Your task to perform on an android device: Empty the shopping cart on costco. Add jbl flip 4 to the cart on costco Image 0: 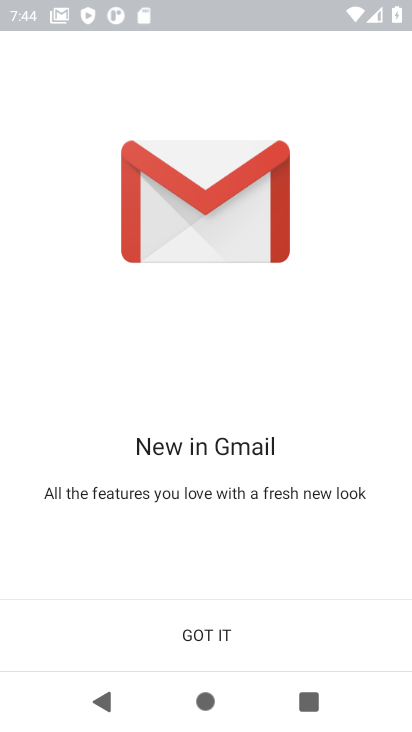
Step 0: press home button
Your task to perform on an android device: Empty the shopping cart on costco. Add jbl flip 4 to the cart on costco Image 1: 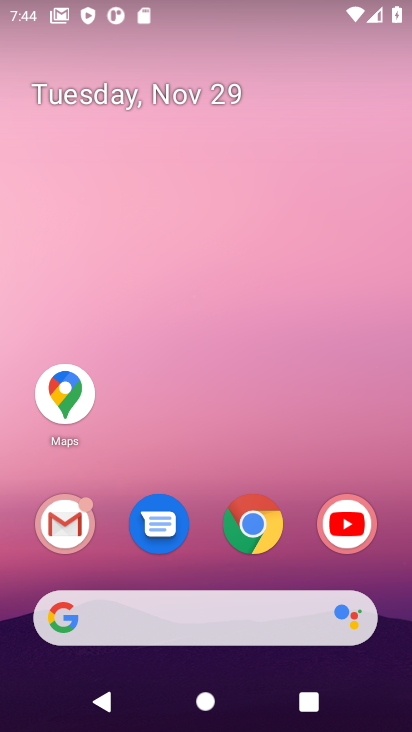
Step 1: click (261, 526)
Your task to perform on an android device: Empty the shopping cart on costco. Add jbl flip 4 to the cart on costco Image 2: 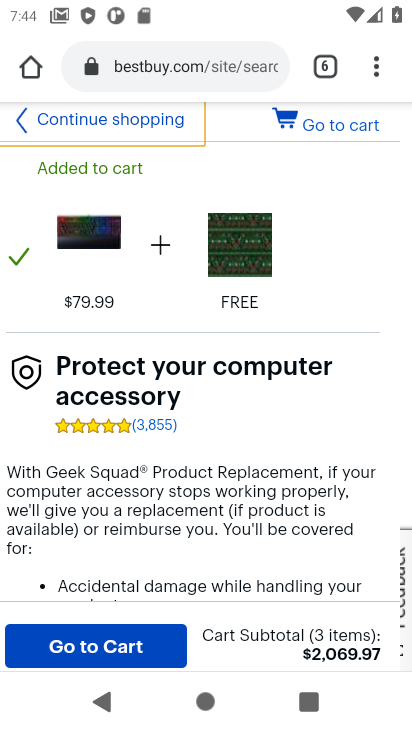
Step 2: click (183, 70)
Your task to perform on an android device: Empty the shopping cart on costco. Add jbl flip 4 to the cart on costco Image 3: 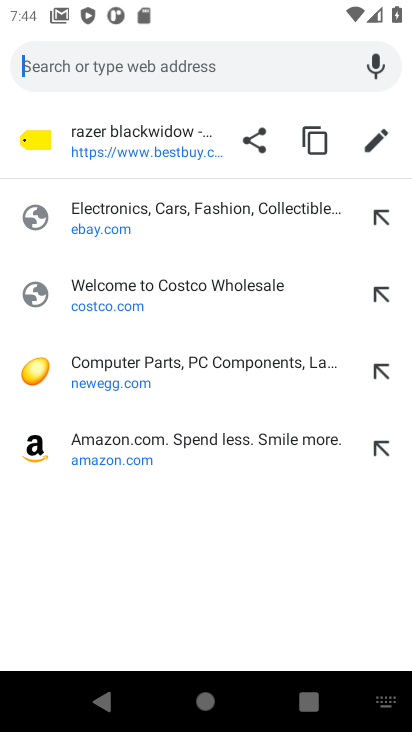
Step 3: click (78, 285)
Your task to perform on an android device: Empty the shopping cart on costco. Add jbl flip 4 to the cart on costco Image 4: 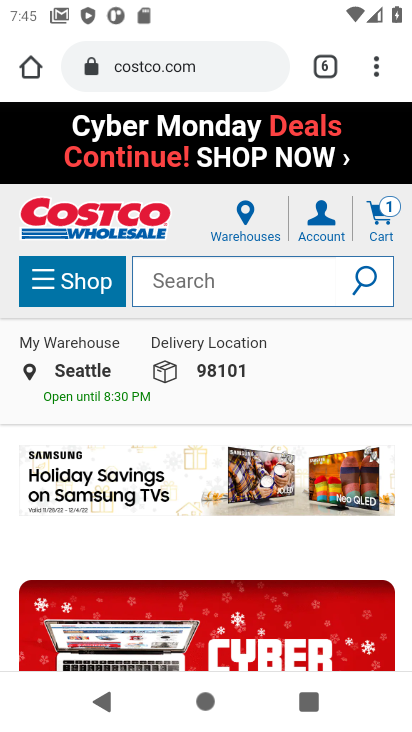
Step 4: click (386, 217)
Your task to perform on an android device: Empty the shopping cart on costco. Add jbl flip 4 to the cart on costco Image 5: 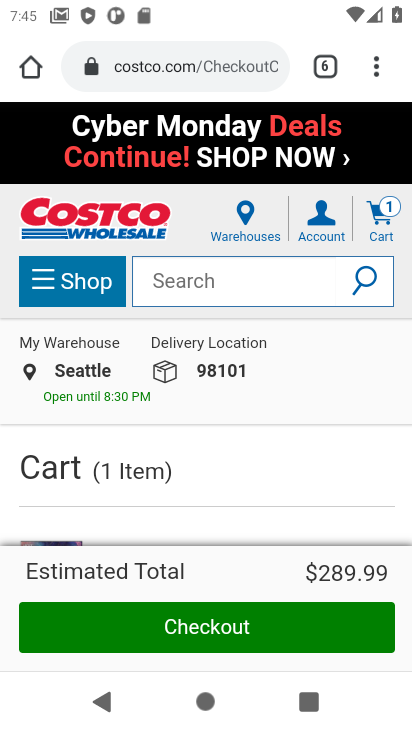
Step 5: drag from (184, 488) to (175, 183)
Your task to perform on an android device: Empty the shopping cart on costco. Add jbl flip 4 to the cart on costco Image 6: 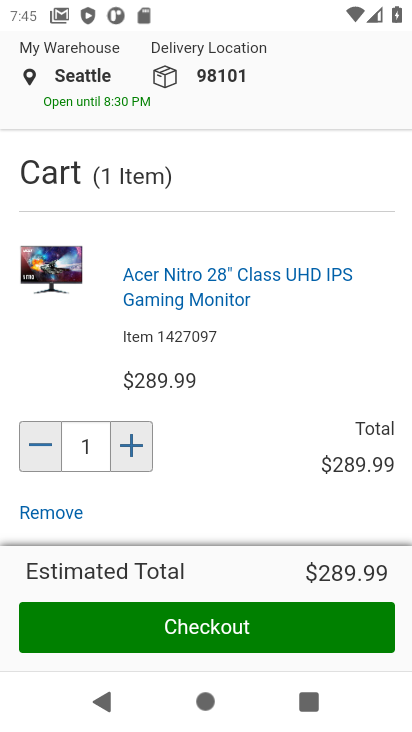
Step 6: drag from (241, 374) to (232, 155)
Your task to perform on an android device: Empty the shopping cart on costco. Add jbl flip 4 to the cart on costco Image 7: 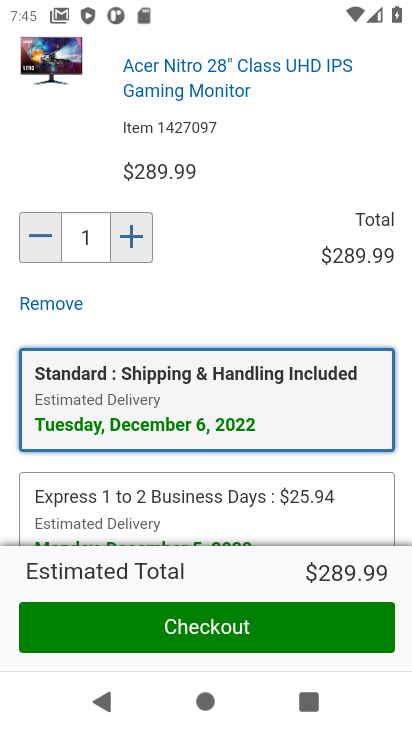
Step 7: drag from (256, 466) to (235, 130)
Your task to perform on an android device: Empty the shopping cart on costco. Add jbl flip 4 to the cart on costco Image 8: 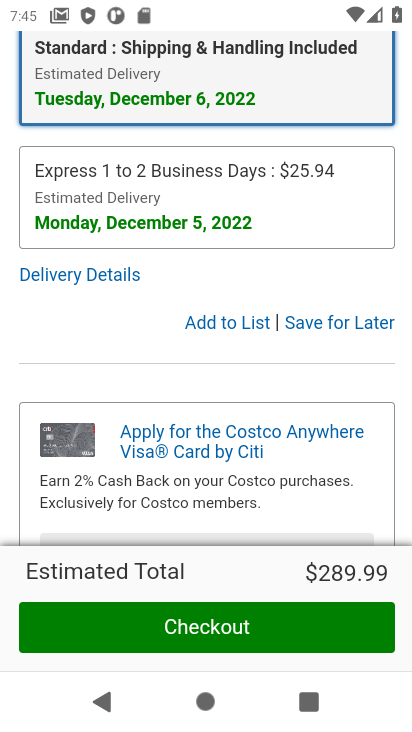
Step 8: click (307, 326)
Your task to perform on an android device: Empty the shopping cart on costco. Add jbl flip 4 to the cart on costco Image 9: 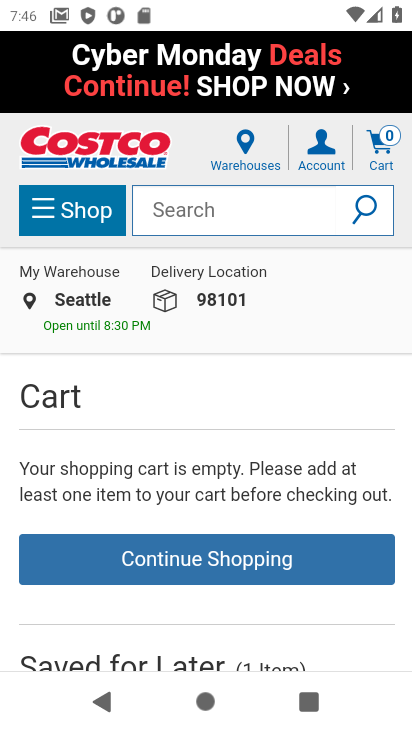
Step 9: click (156, 217)
Your task to perform on an android device: Empty the shopping cart on costco. Add jbl flip 4 to the cart on costco Image 10: 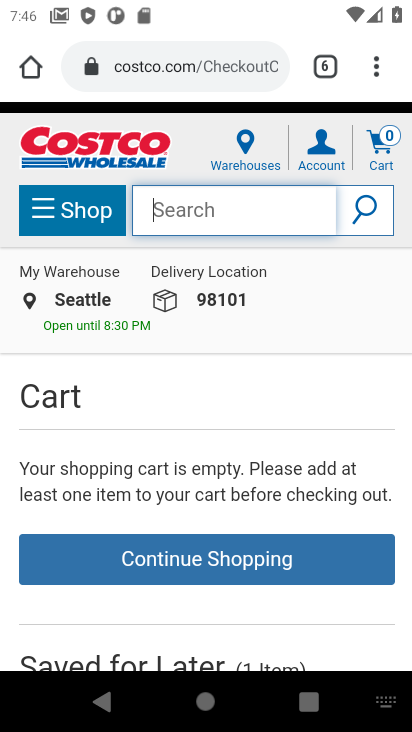
Step 10: type " jbl flip 4"
Your task to perform on an android device: Empty the shopping cart on costco. Add jbl flip 4 to the cart on costco Image 11: 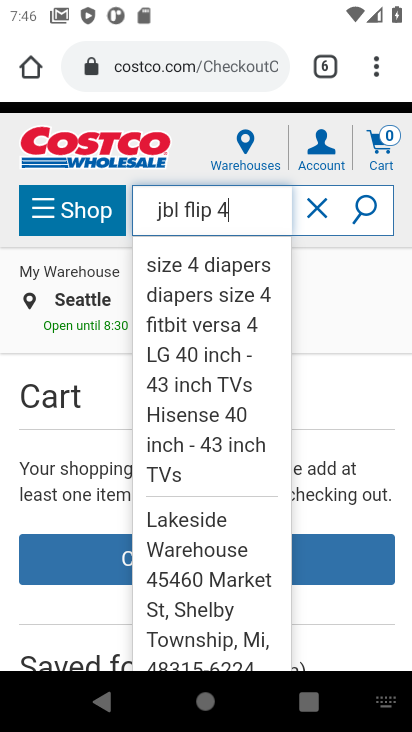
Step 11: click (371, 213)
Your task to perform on an android device: Empty the shopping cart on costco. Add jbl flip 4 to the cart on costco Image 12: 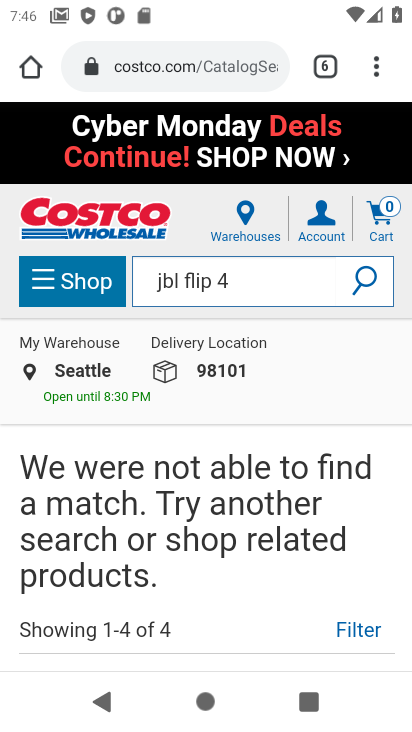
Step 12: task complete